Your task to perform on an android device: Open ESPN.com Image 0: 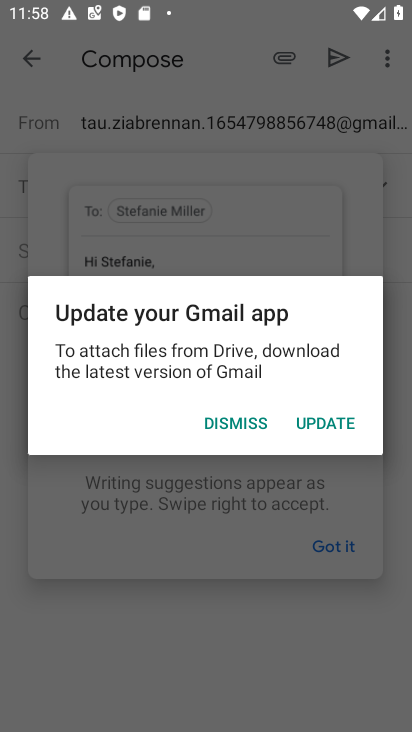
Step 0: press home button
Your task to perform on an android device: Open ESPN.com Image 1: 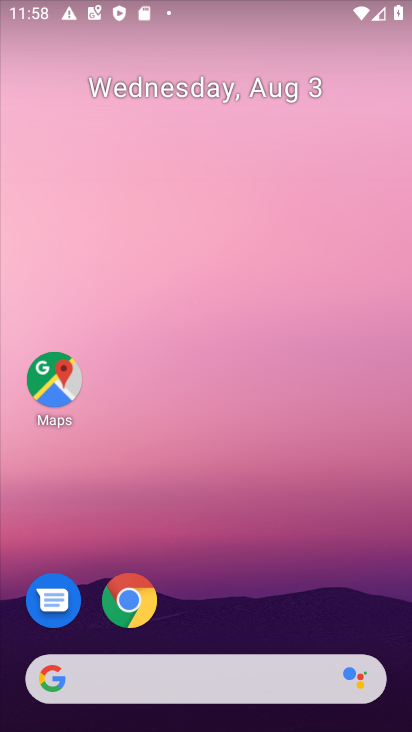
Step 1: click (126, 601)
Your task to perform on an android device: Open ESPN.com Image 2: 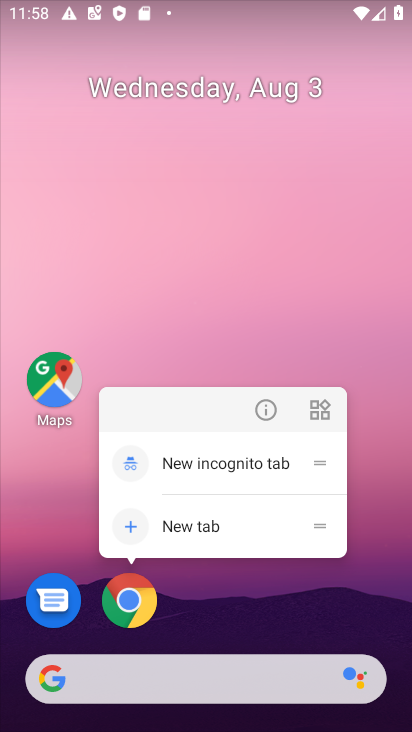
Step 2: click (137, 603)
Your task to perform on an android device: Open ESPN.com Image 3: 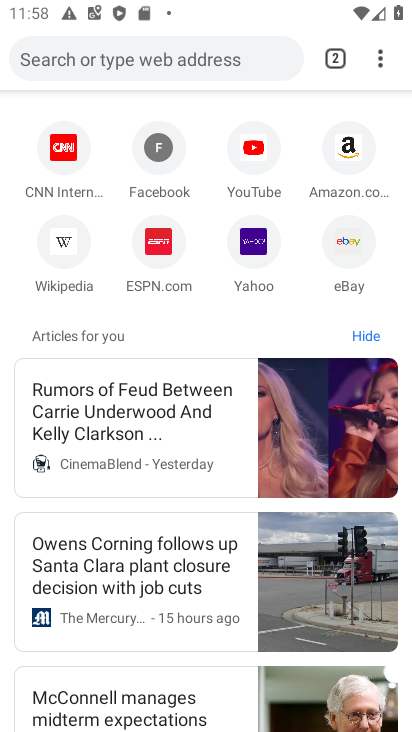
Step 3: click (158, 239)
Your task to perform on an android device: Open ESPN.com Image 4: 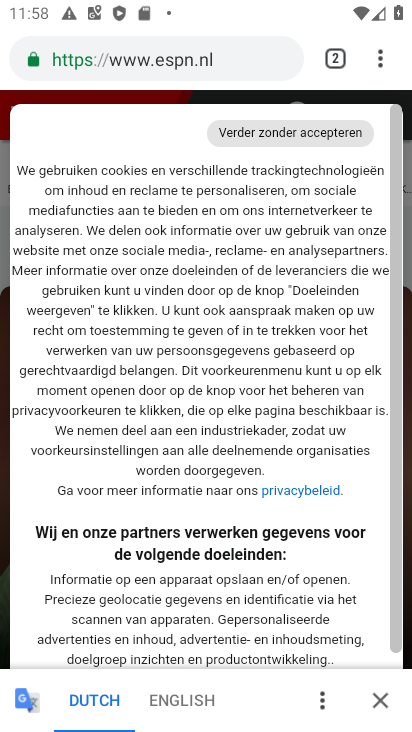
Step 4: click (184, 696)
Your task to perform on an android device: Open ESPN.com Image 5: 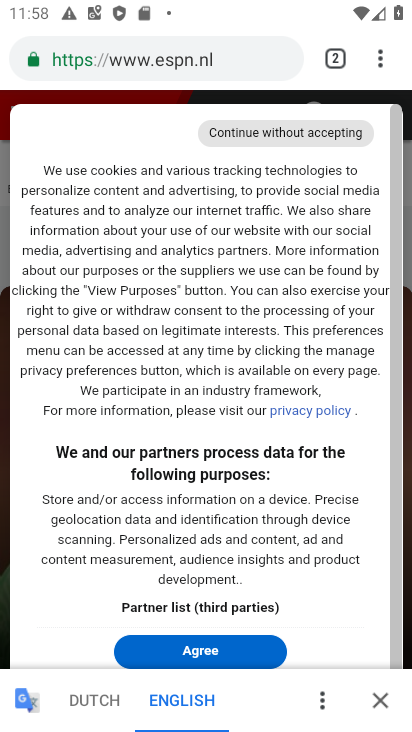
Step 5: click (233, 648)
Your task to perform on an android device: Open ESPN.com Image 6: 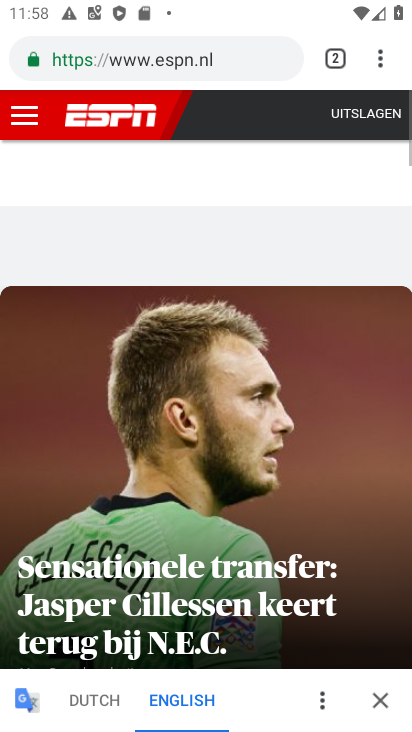
Step 6: task complete